Your task to perform on an android device: show emergency info Image 0: 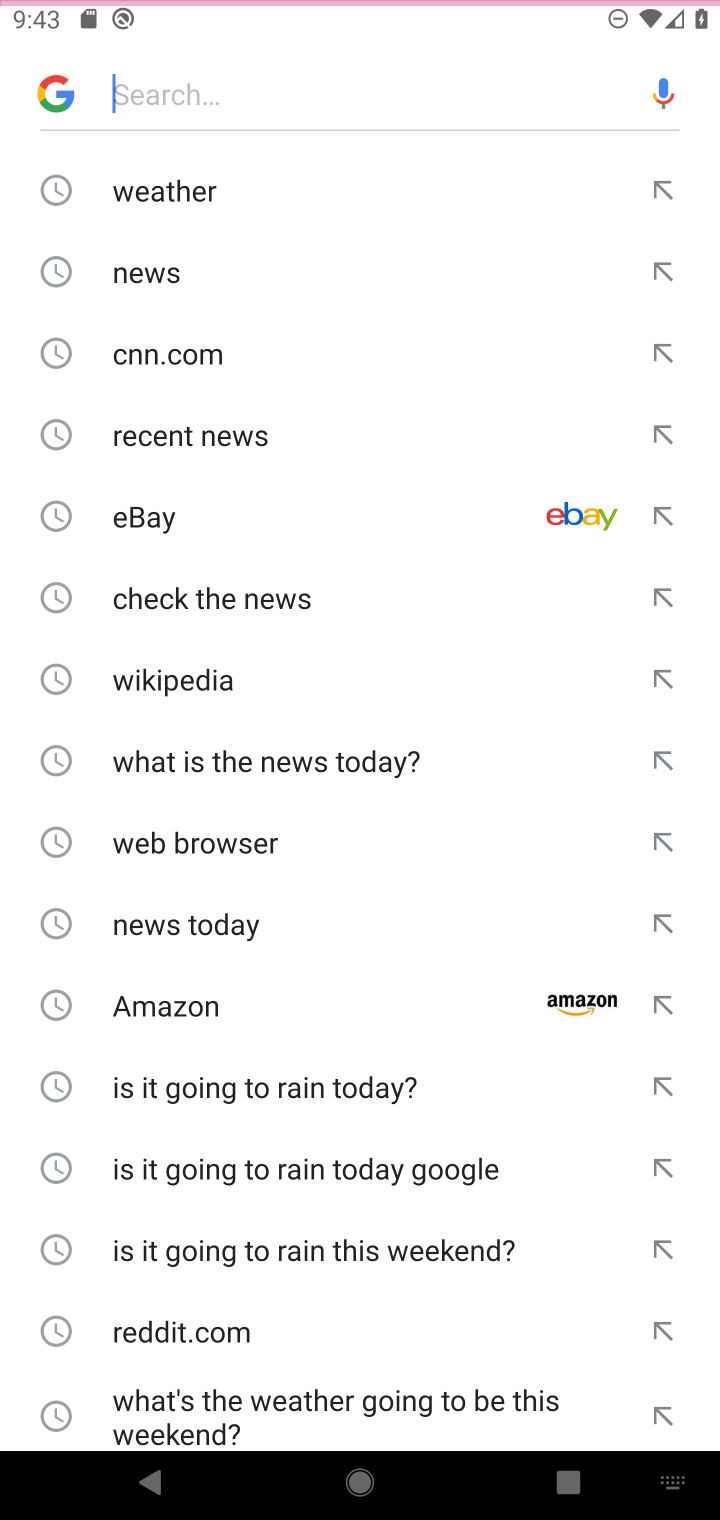
Step 0: press home button
Your task to perform on an android device: show emergency info Image 1: 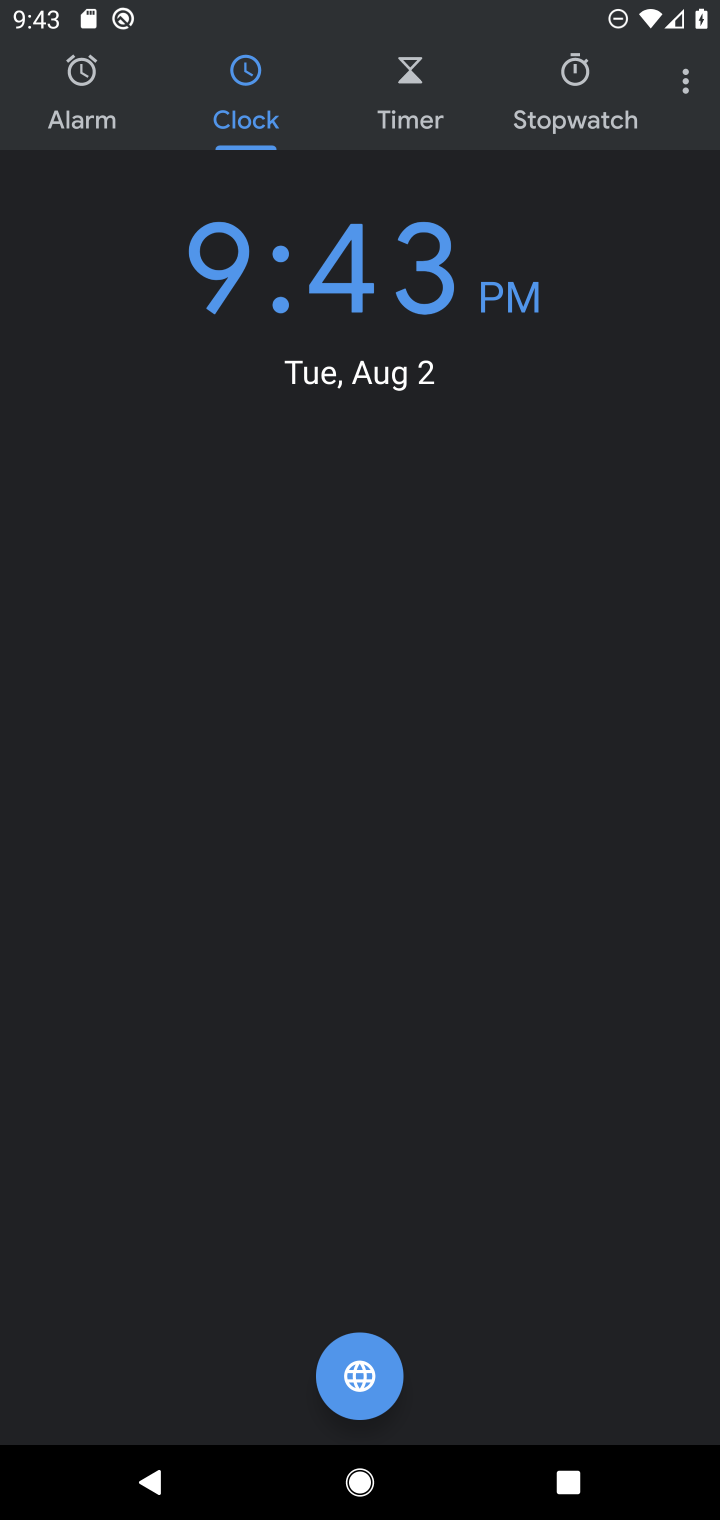
Step 1: press home button
Your task to perform on an android device: show emergency info Image 2: 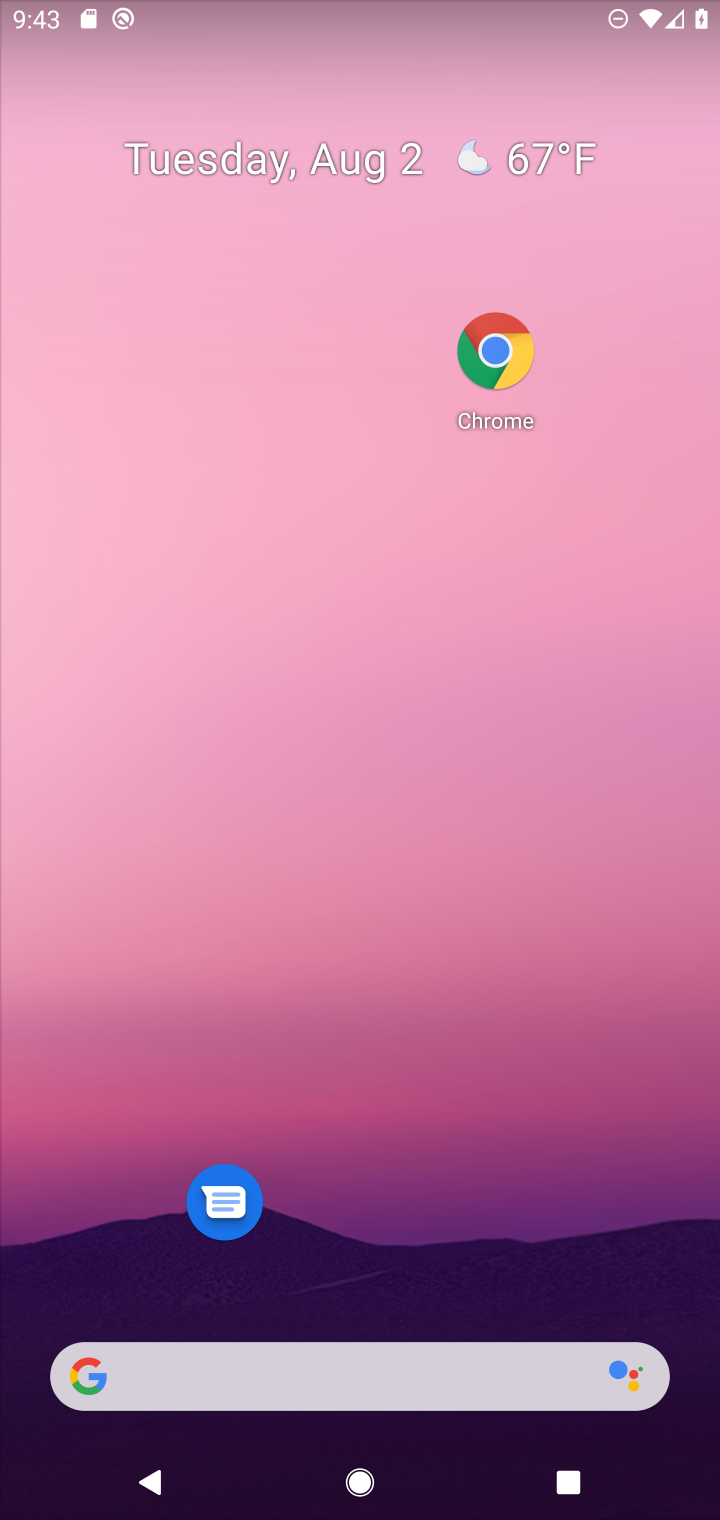
Step 2: drag from (364, 1210) to (294, 59)
Your task to perform on an android device: show emergency info Image 3: 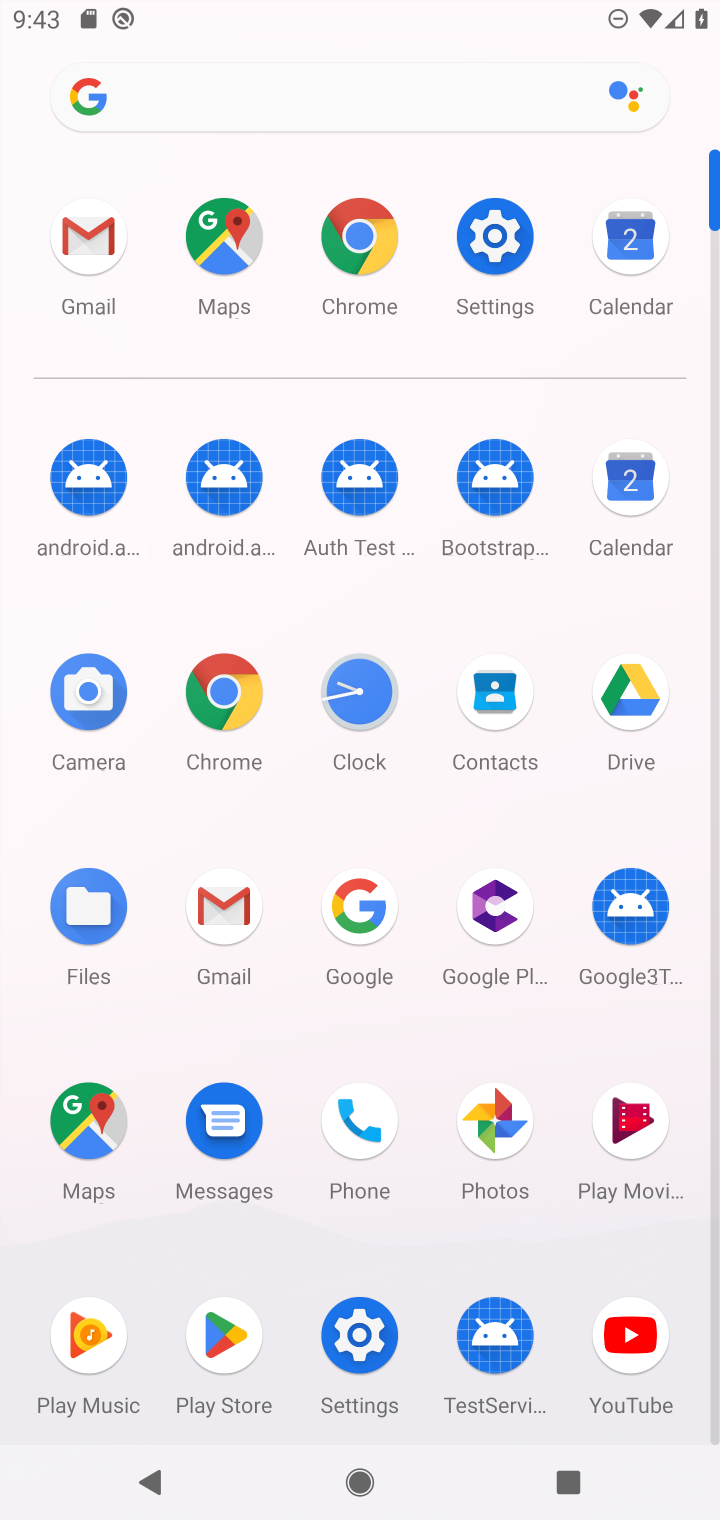
Step 3: click (489, 234)
Your task to perform on an android device: show emergency info Image 4: 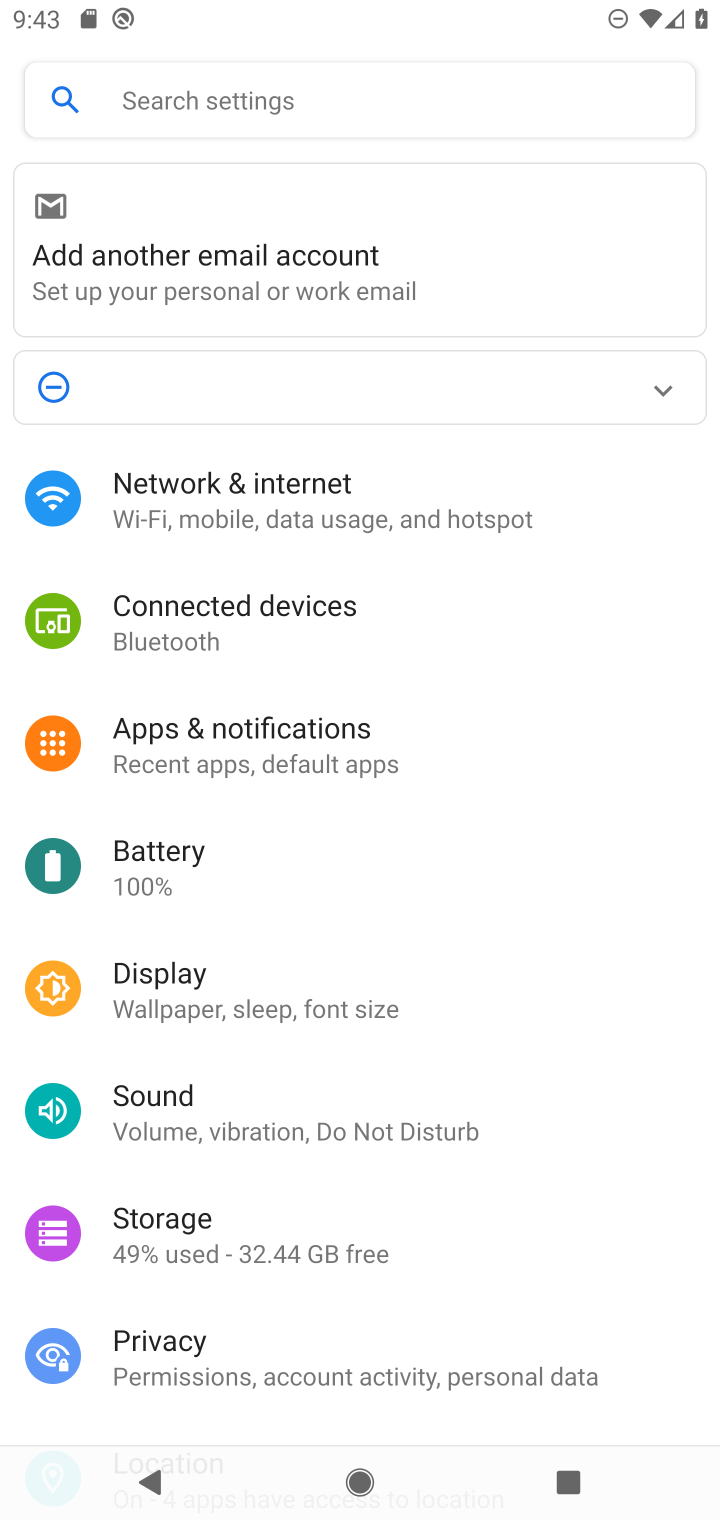
Step 4: drag from (668, 1312) to (622, 457)
Your task to perform on an android device: show emergency info Image 5: 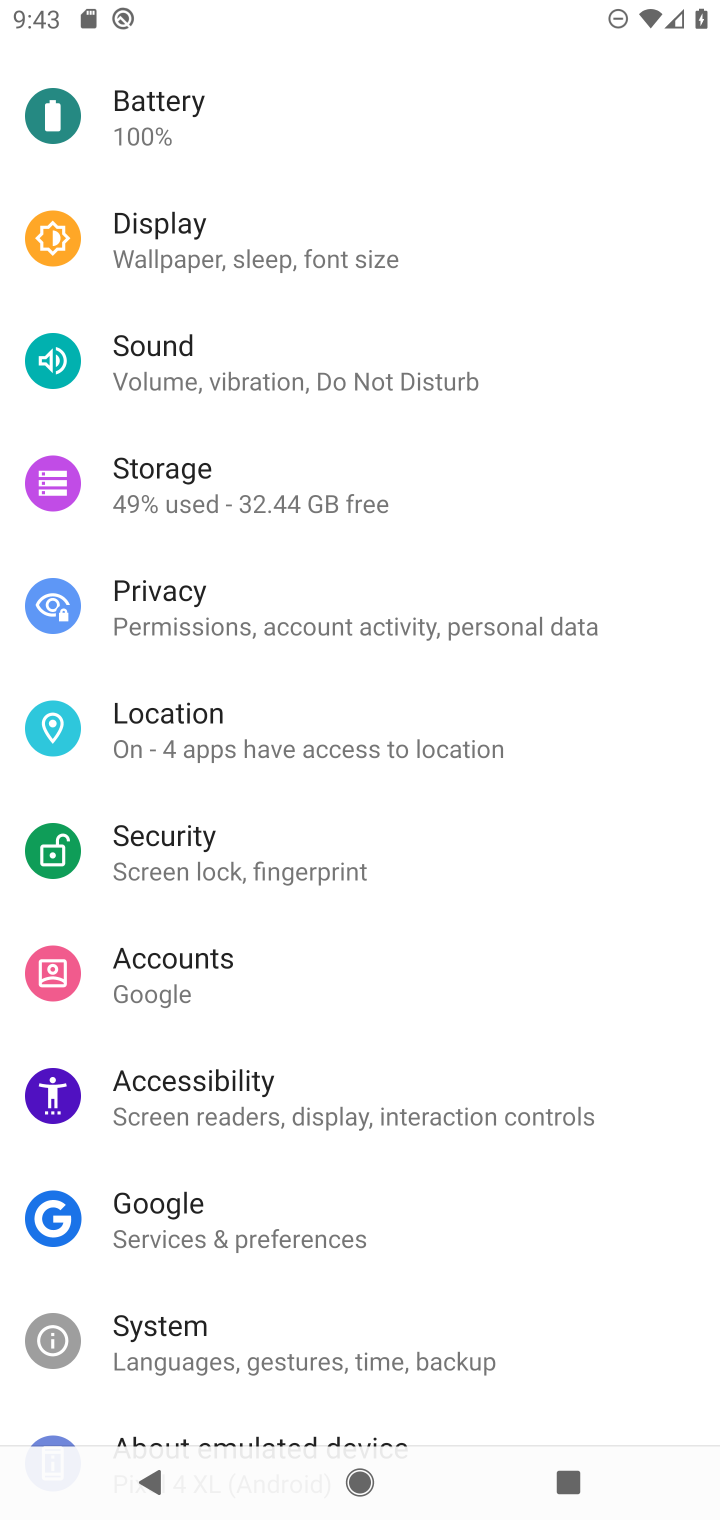
Step 5: drag from (697, 1213) to (657, 681)
Your task to perform on an android device: show emergency info Image 6: 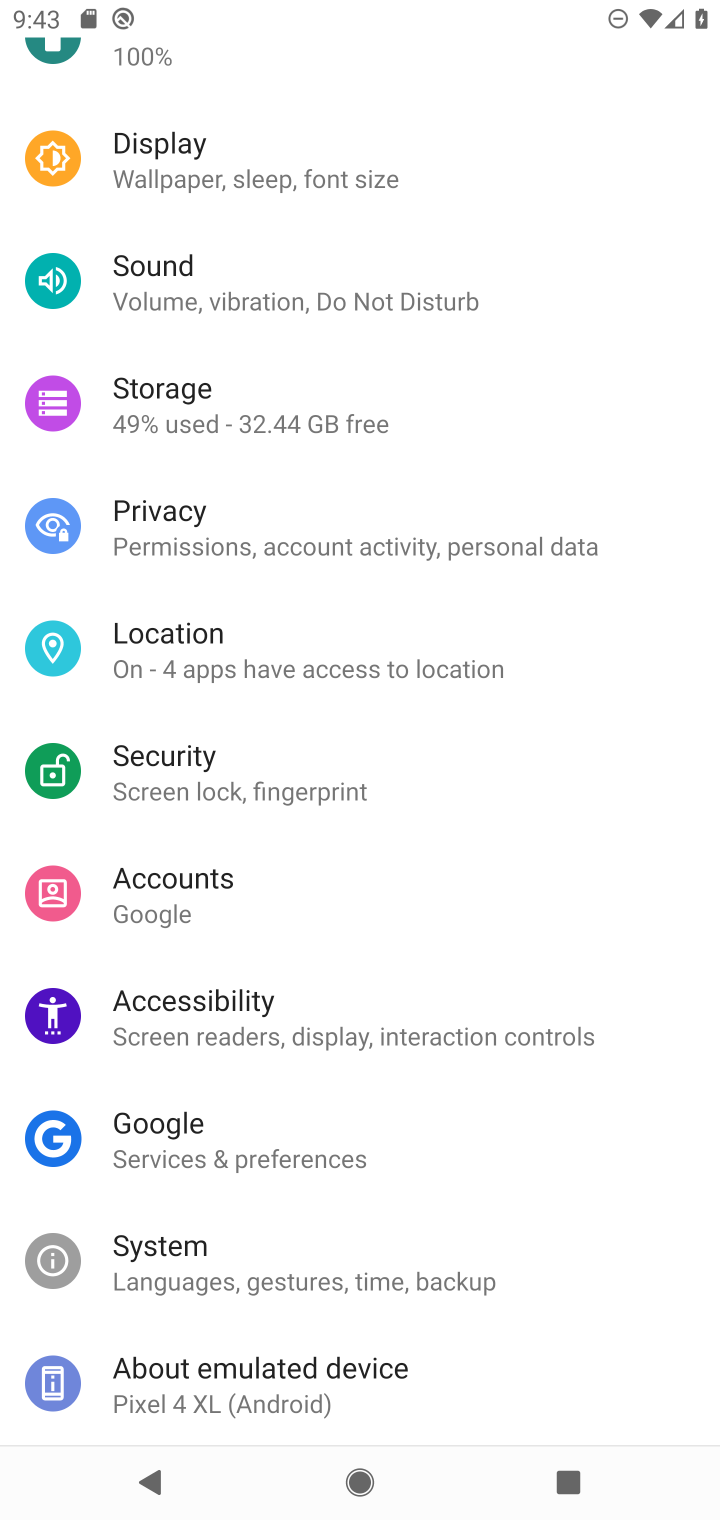
Step 6: click (204, 1400)
Your task to perform on an android device: show emergency info Image 7: 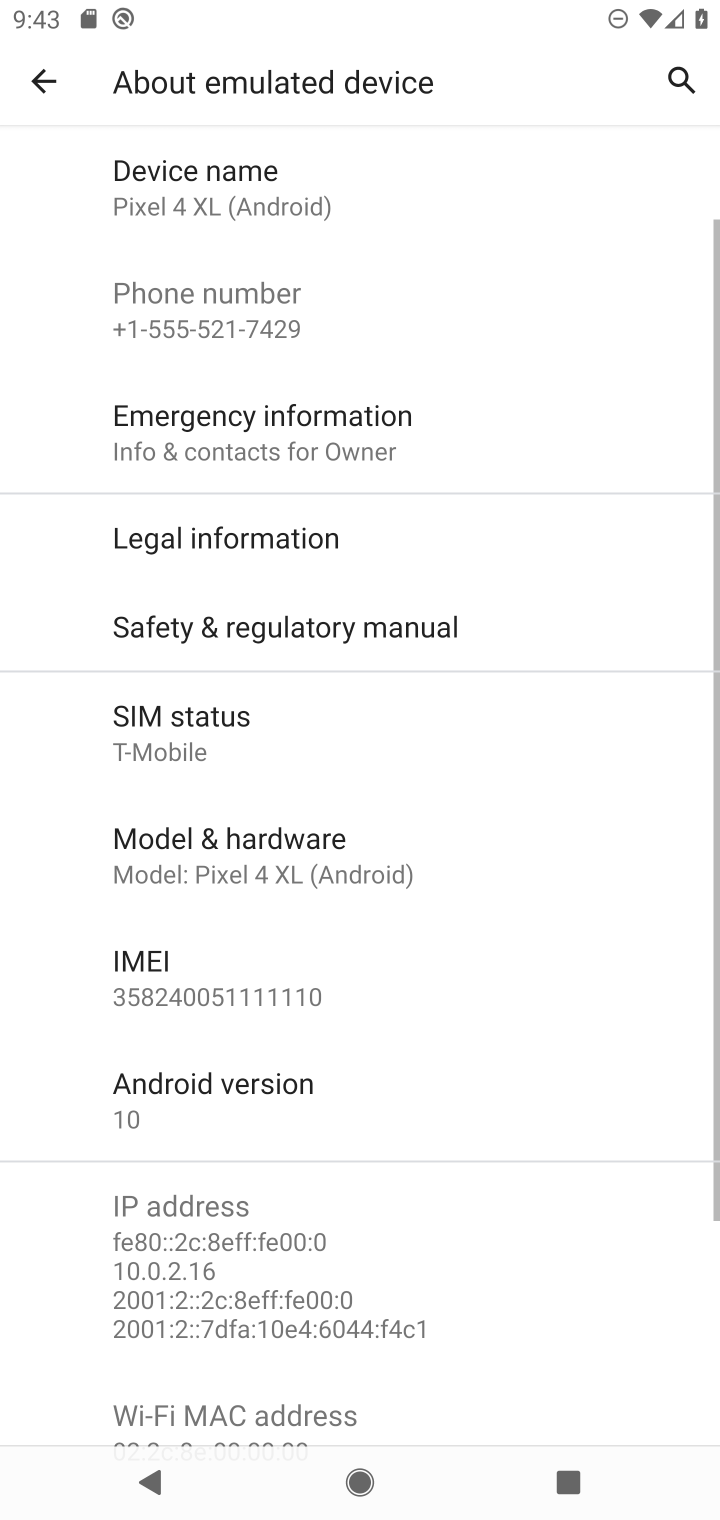
Step 7: click (217, 435)
Your task to perform on an android device: show emergency info Image 8: 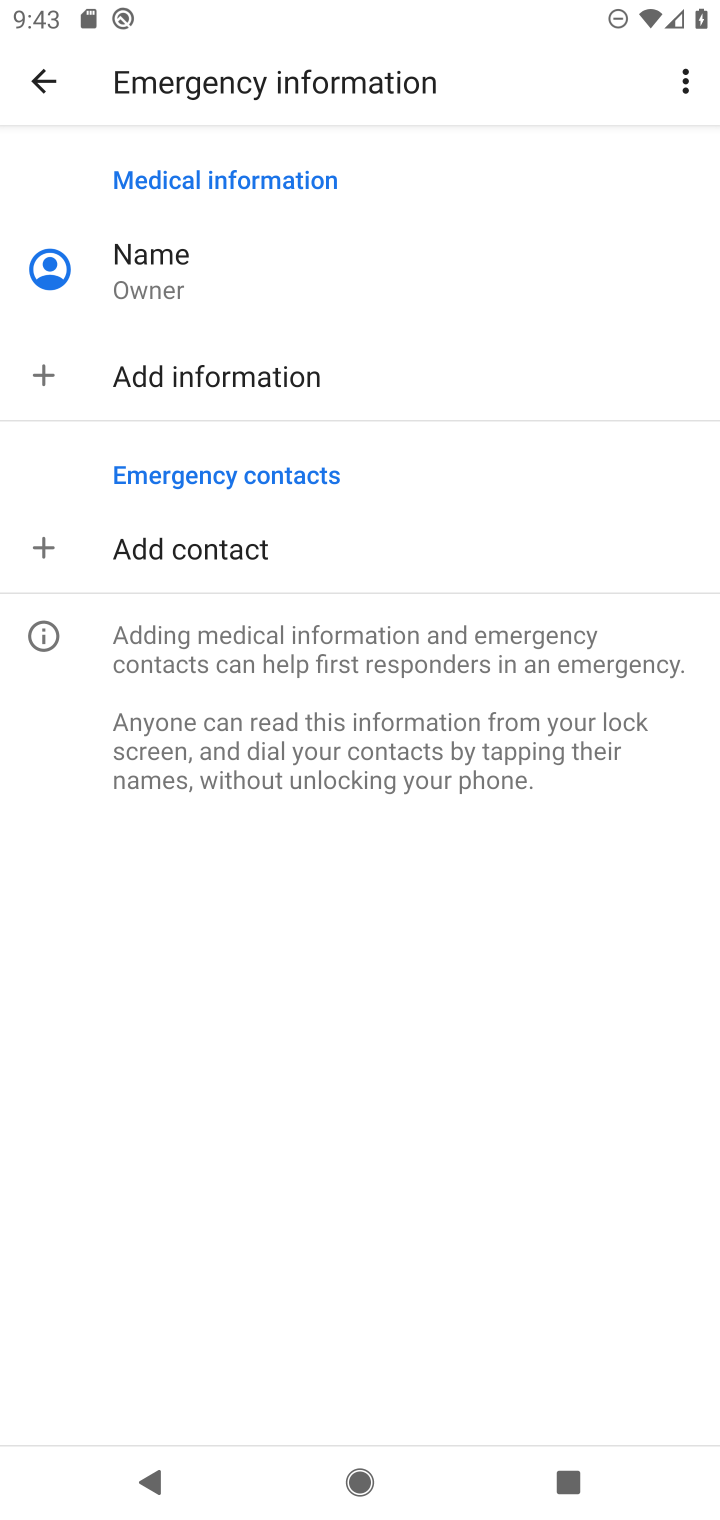
Step 8: task complete